Your task to perform on an android device: Open Reddit.com Image 0: 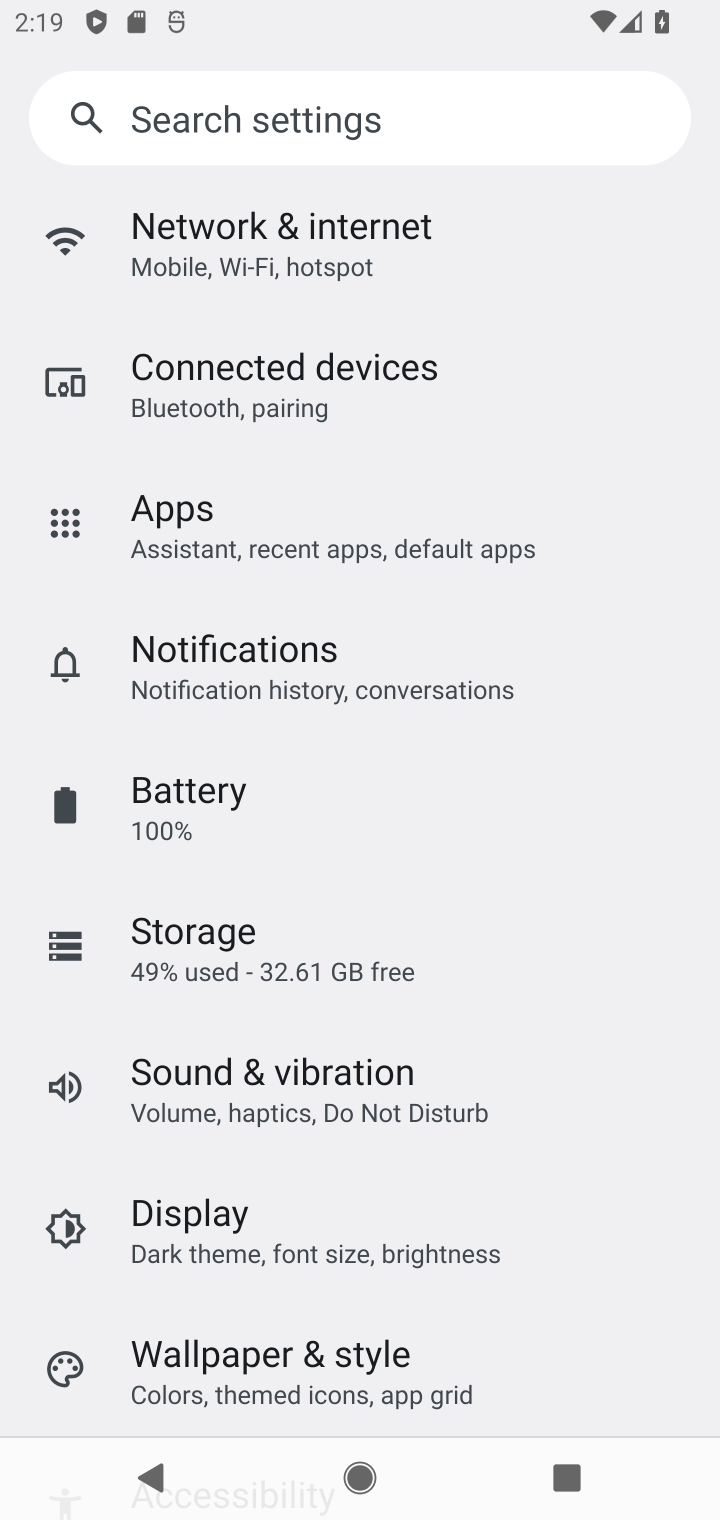
Step 0: press home button
Your task to perform on an android device: Open Reddit.com Image 1: 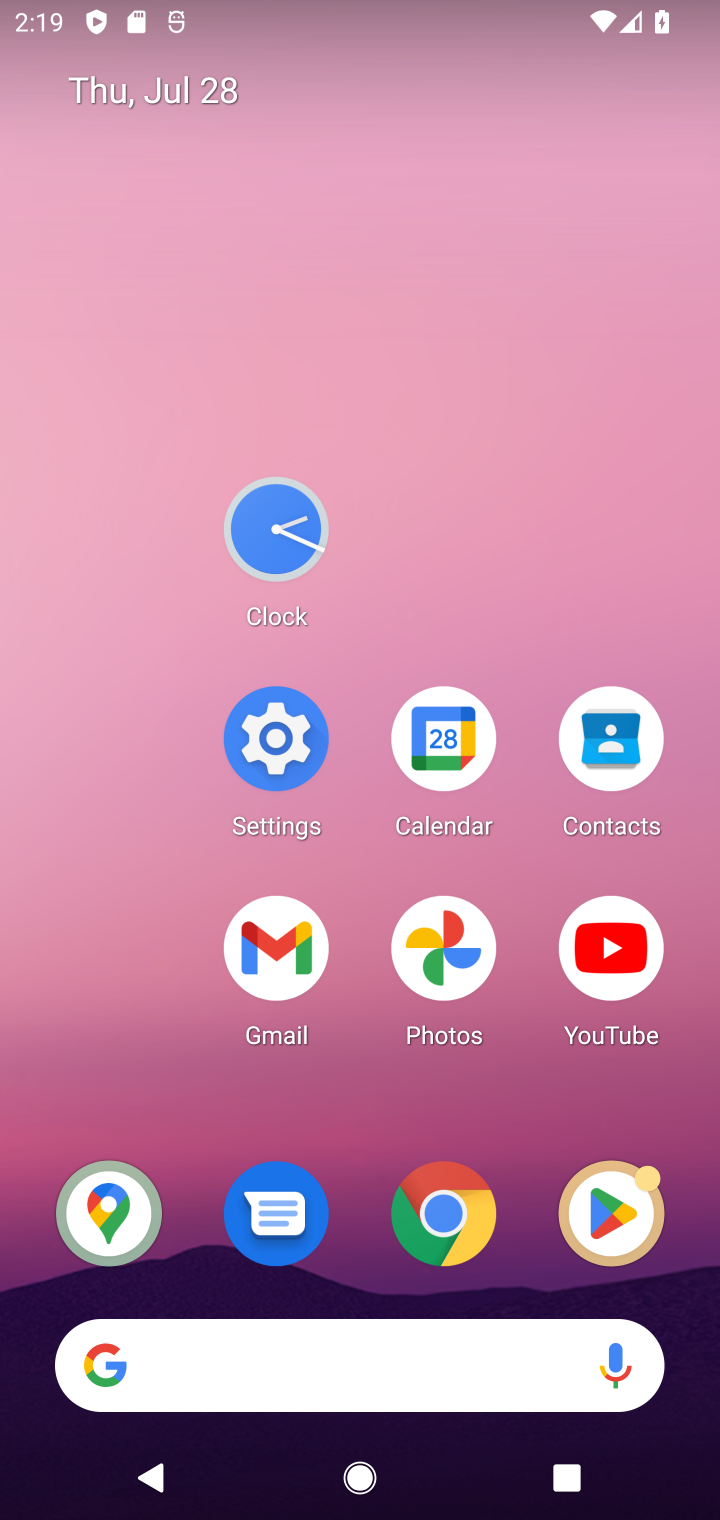
Step 1: click (315, 1369)
Your task to perform on an android device: Open Reddit.com Image 2: 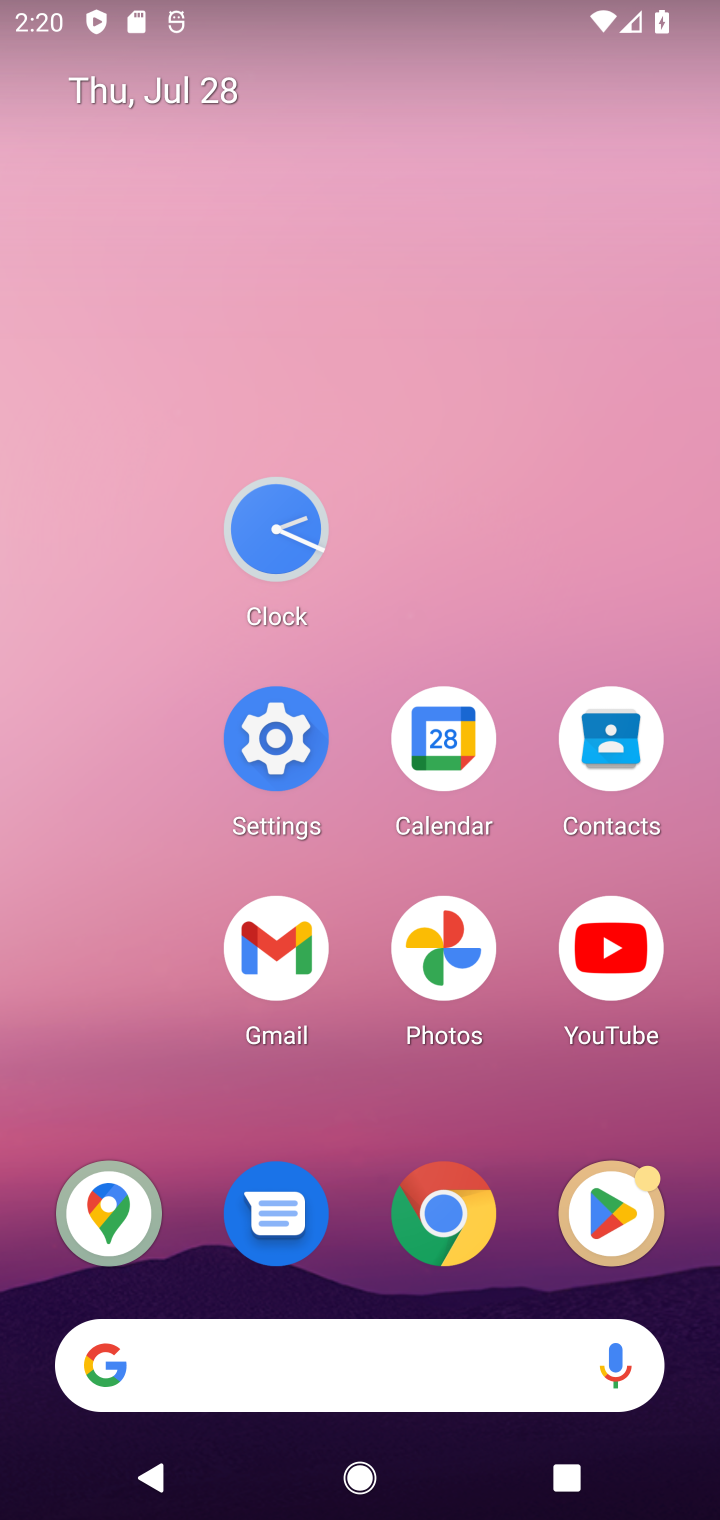
Step 2: click (236, 1378)
Your task to perform on an android device: Open Reddit.com Image 3: 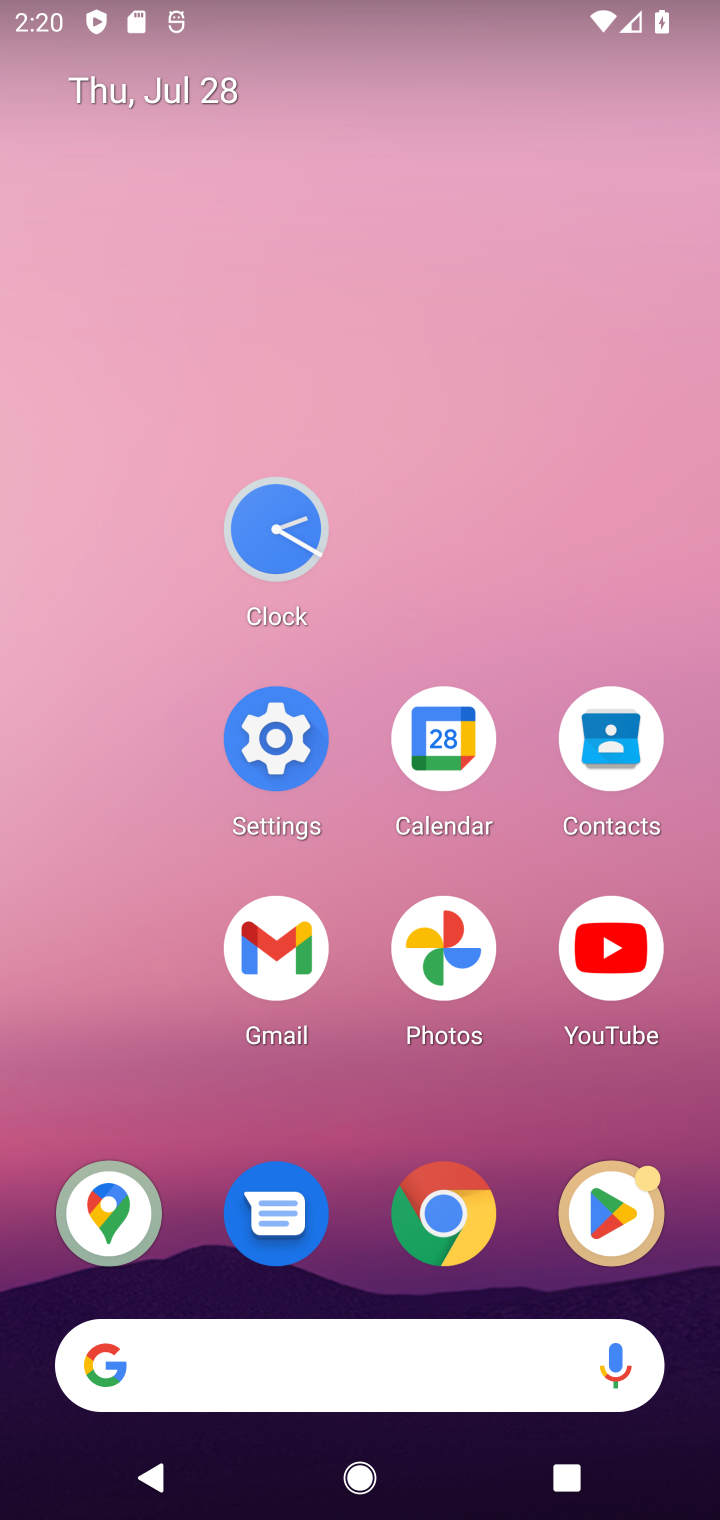
Step 3: click (283, 1370)
Your task to perform on an android device: Open Reddit.com Image 4: 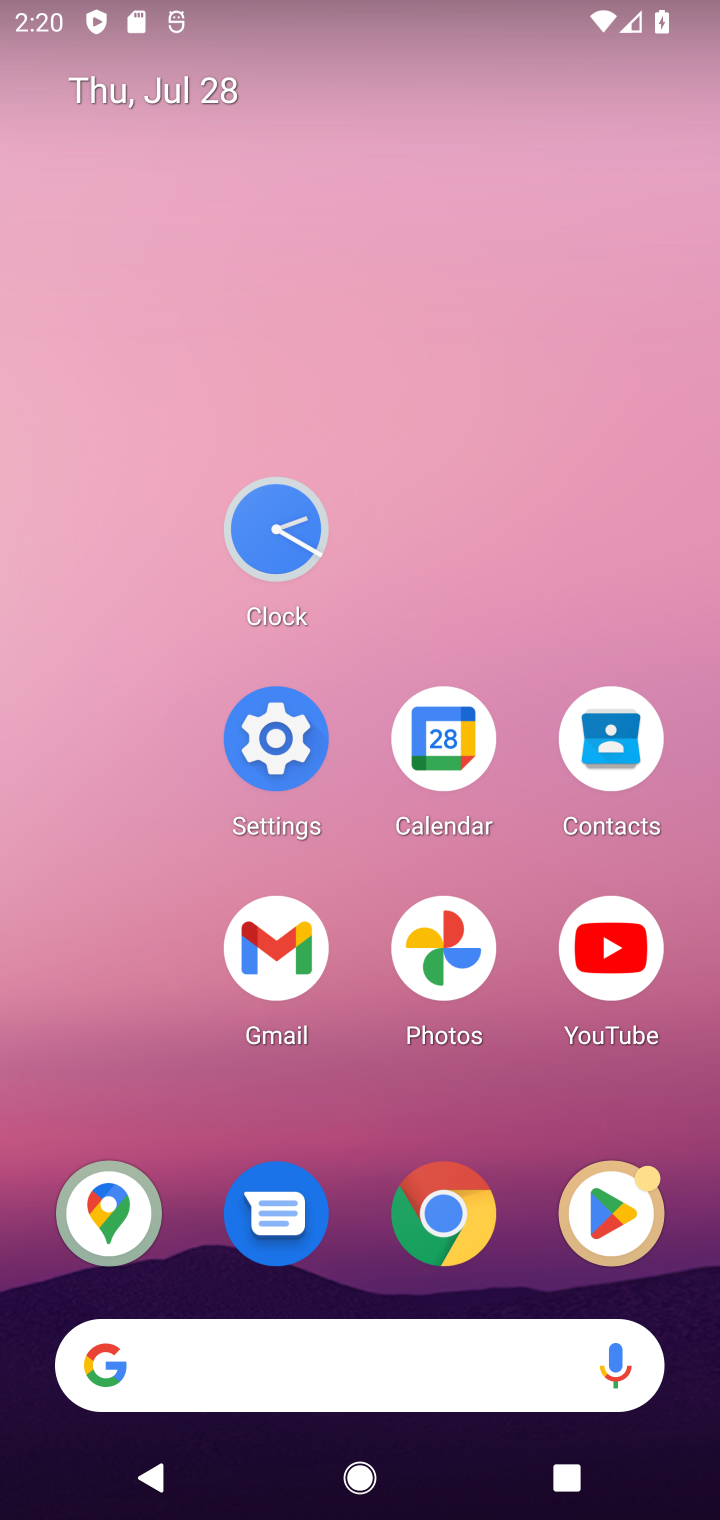
Step 4: click (180, 1358)
Your task to perform on an android device: Open Reddit.com Image 5: 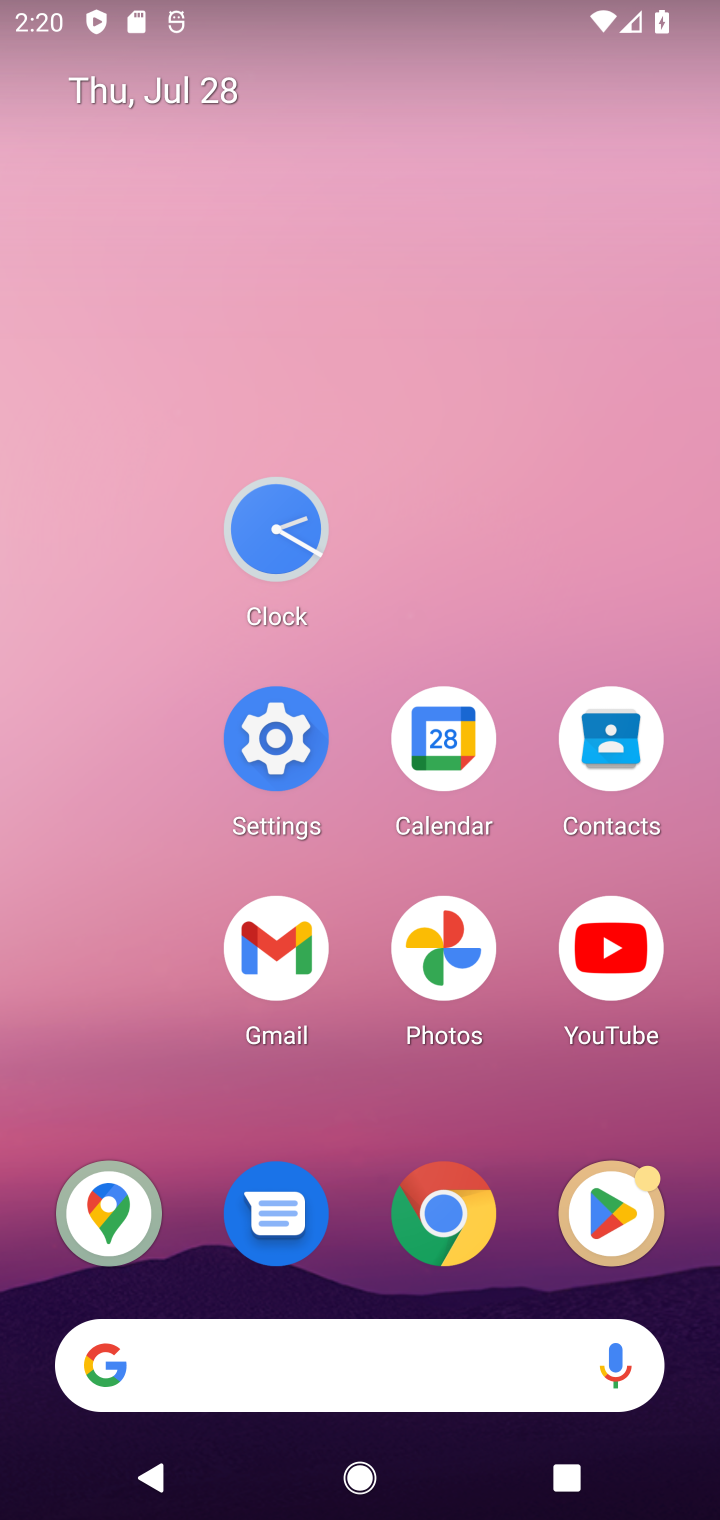
Step 5: click (355, 1356)
Your task to perform on an android device: Open Reddit.com Image 6: 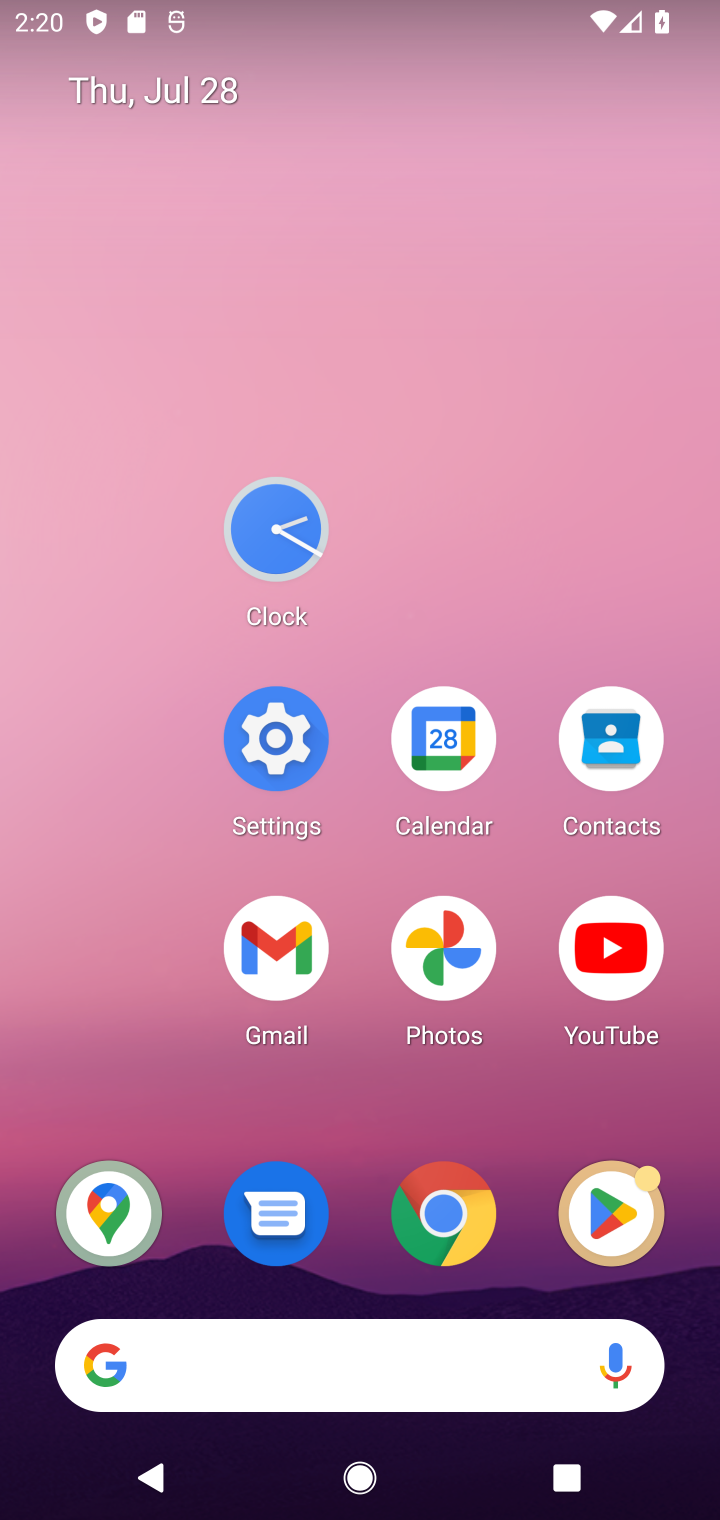
Step 6: click (111, 1371)
Your task to perform on an android device: Open Reddit.com Image 7: 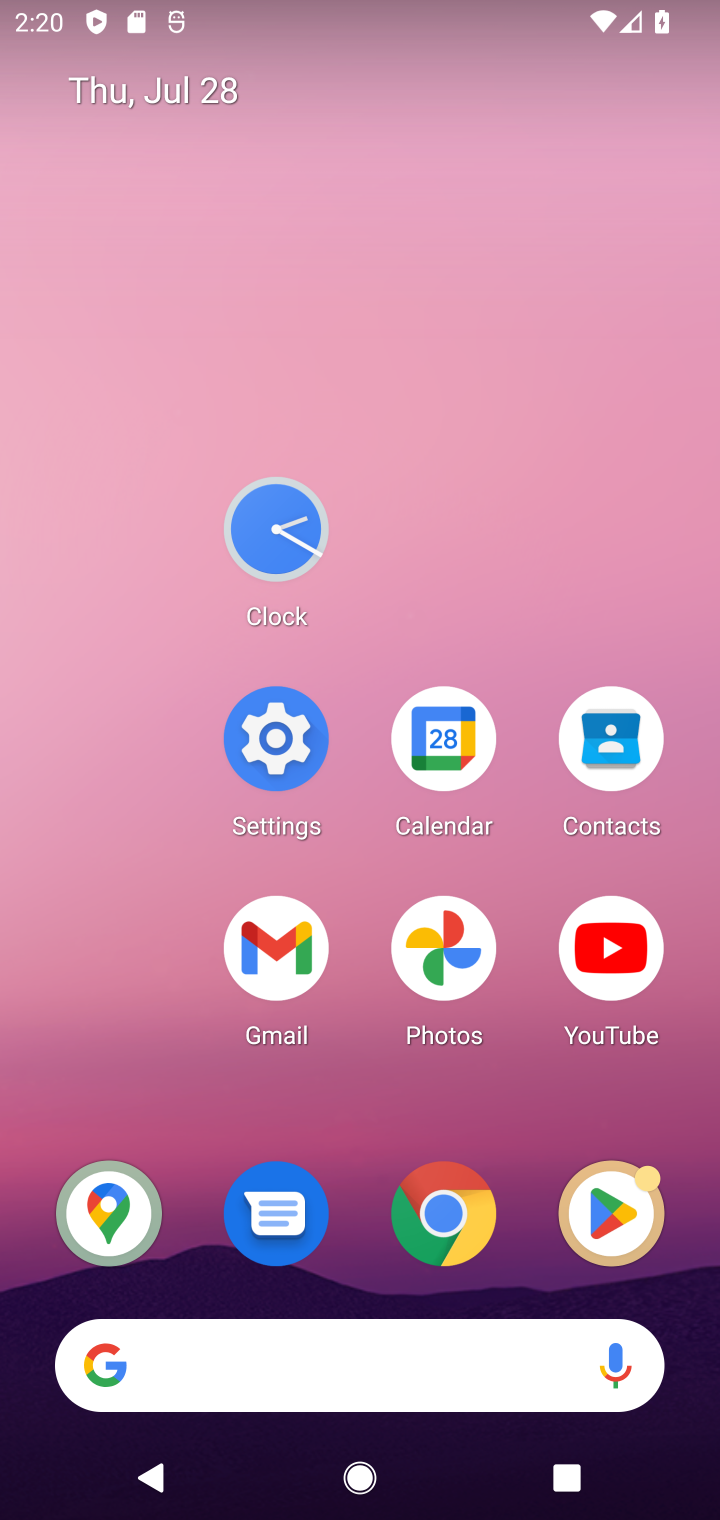
Step 7: click (101, 1363)
Your task to perform on an android device: Open Reddit.com Image 8: 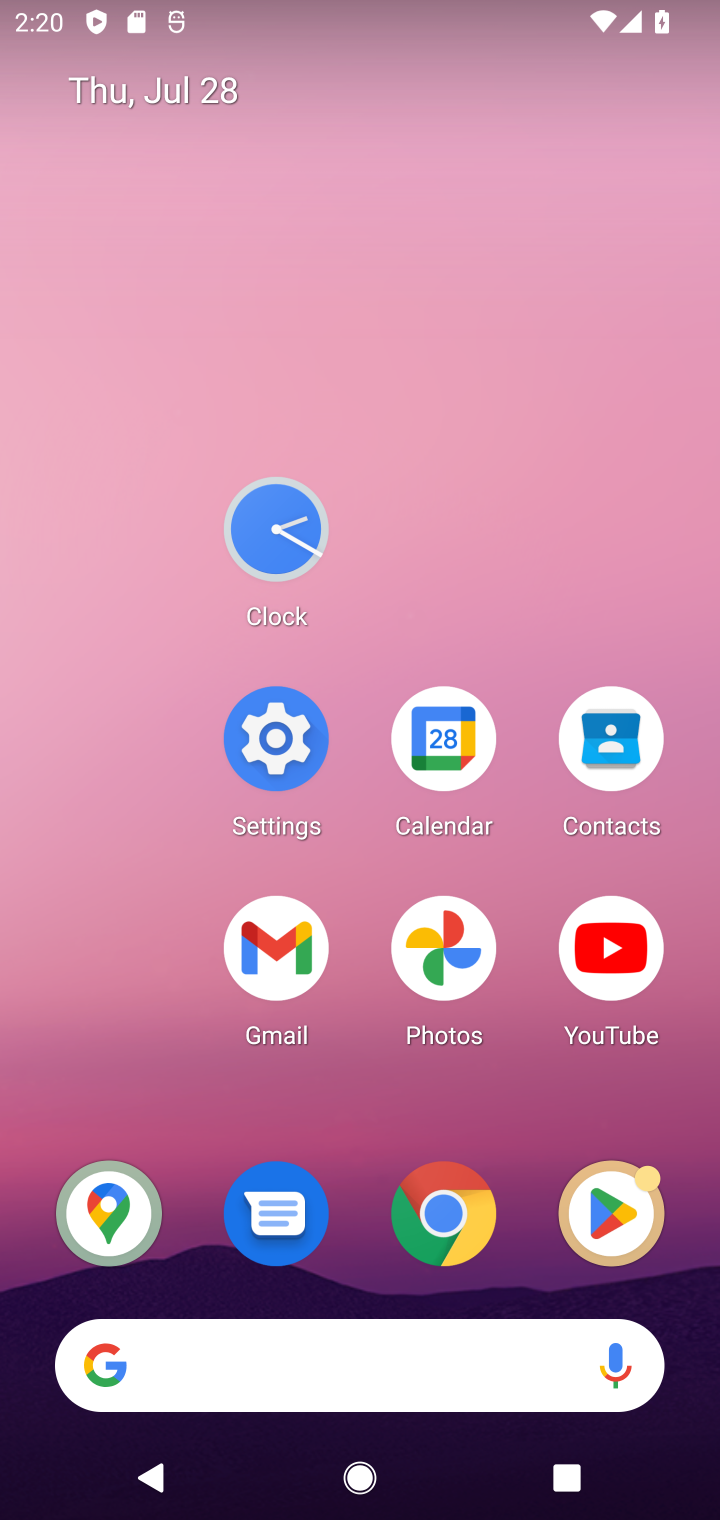
Step 8: click (435, 1213)
Your task to perform on an android device: Open Reddit.com Image 9: 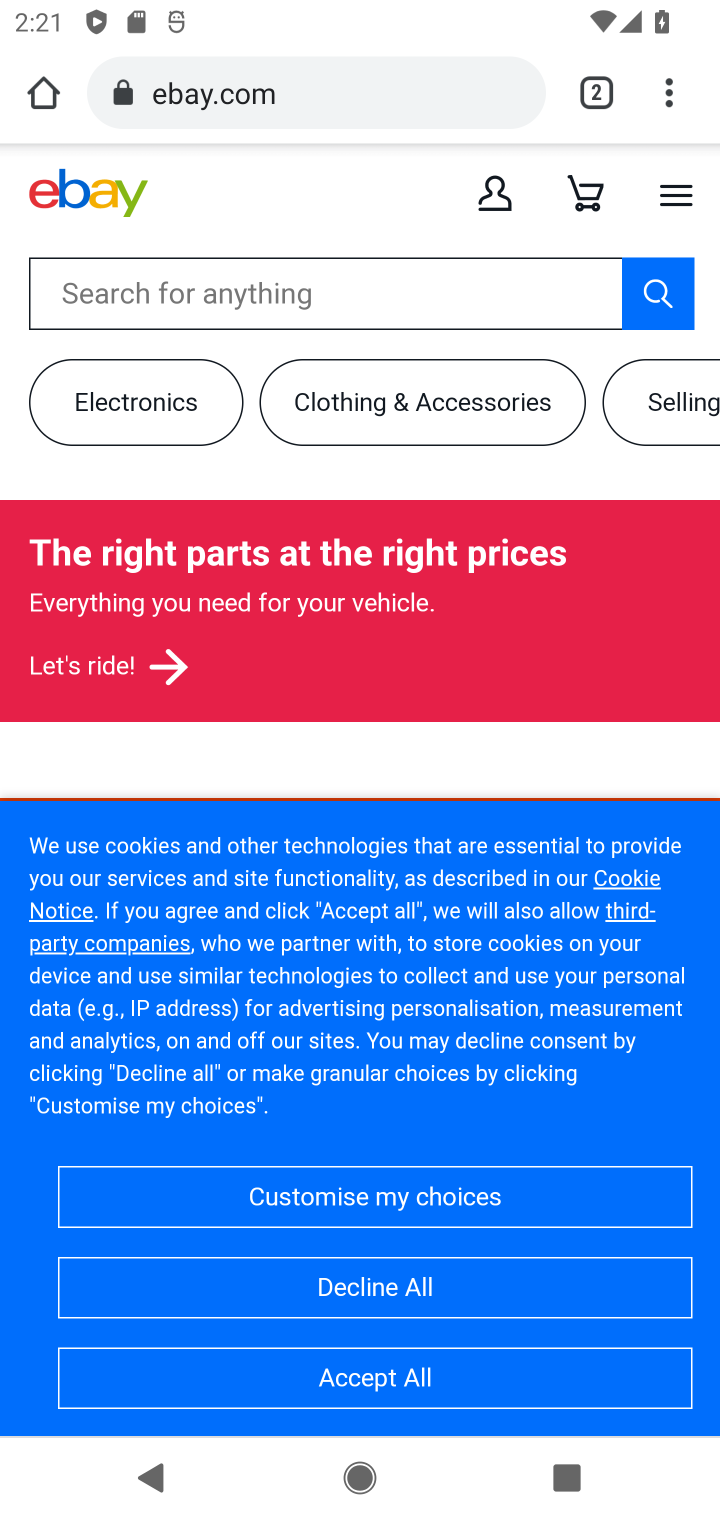
Step 9: click (668, 91)
Your task to perform on an android device: Open Reddit.com Image 10: 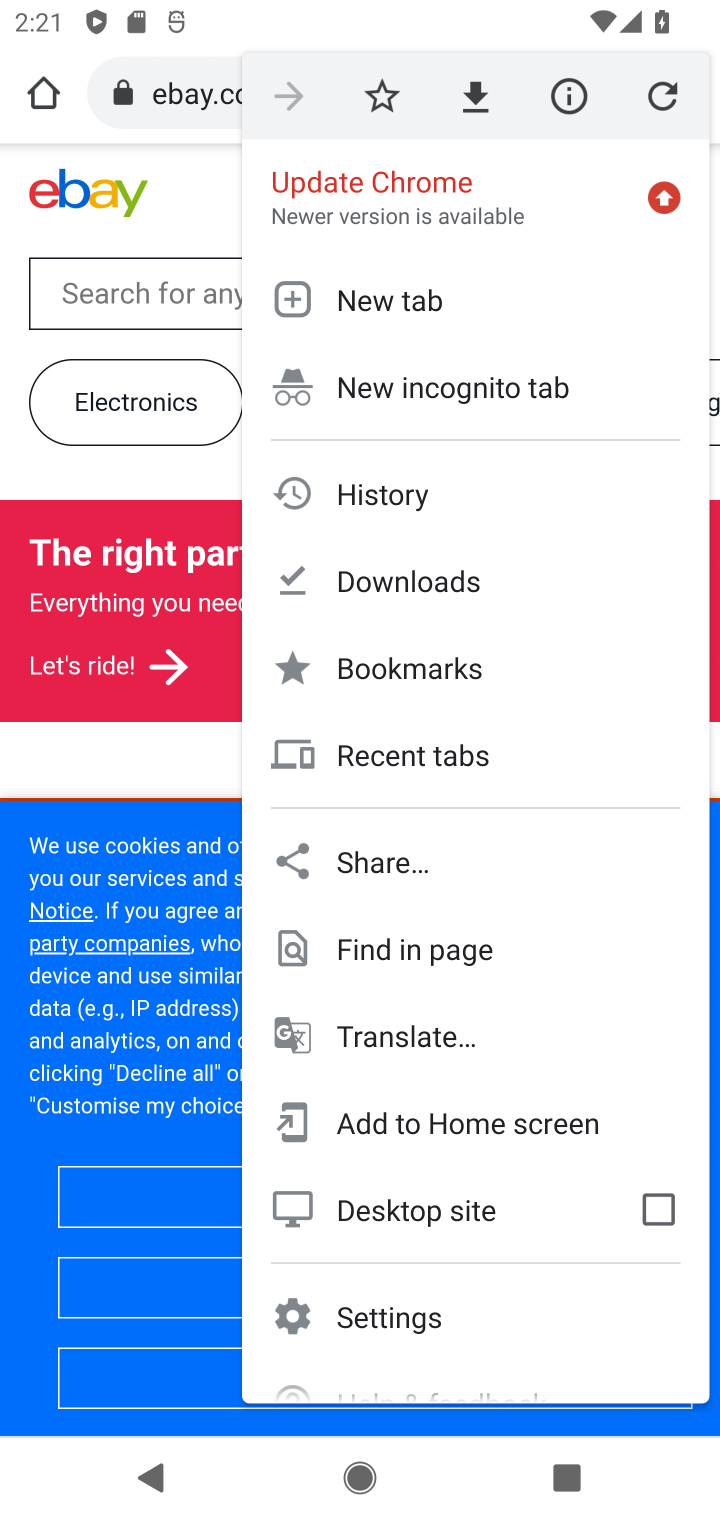
Step 10: click (358, 301)
Your task to perform on an android device: Open Reddit.com Image 11: 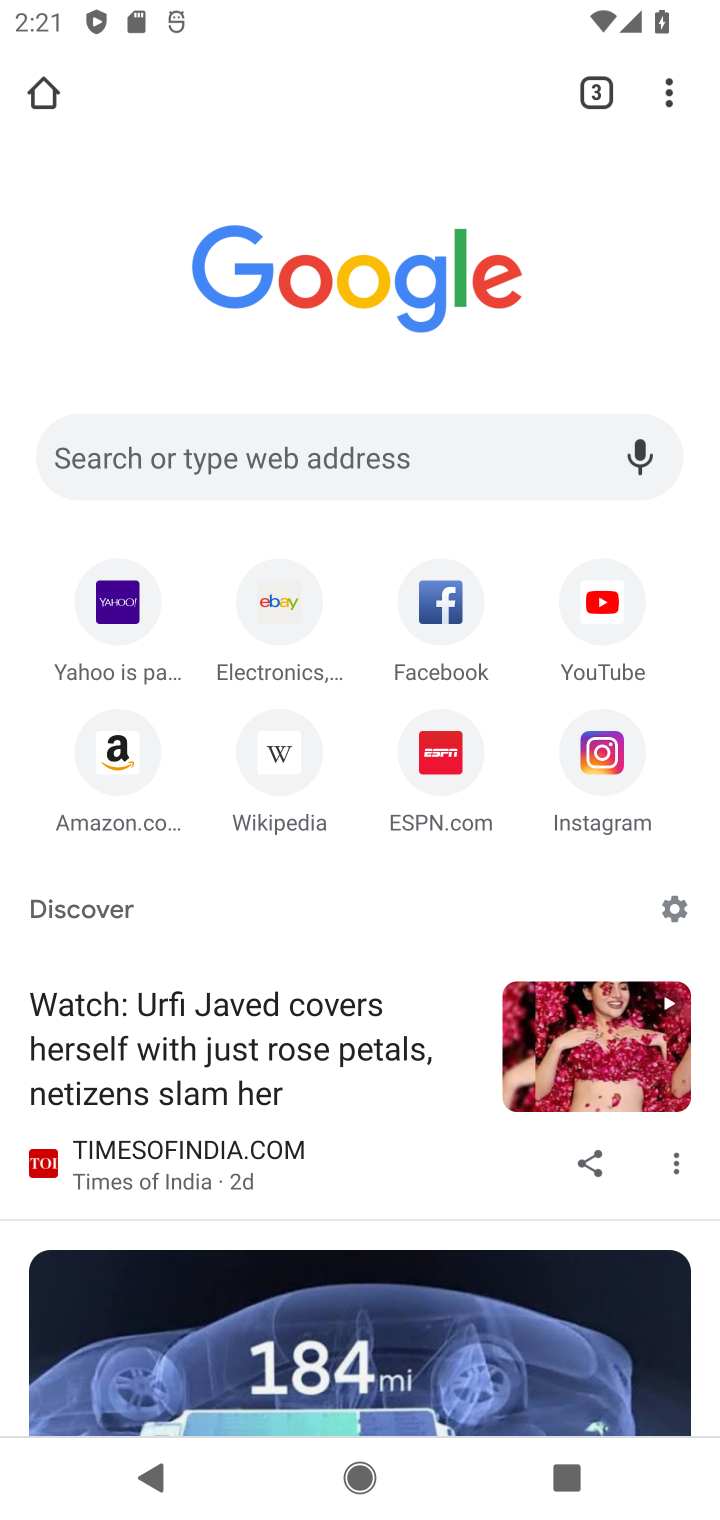
Step 11: click (315, 458)
Your task to perform on an android device: Open Reddit.com Image 12: 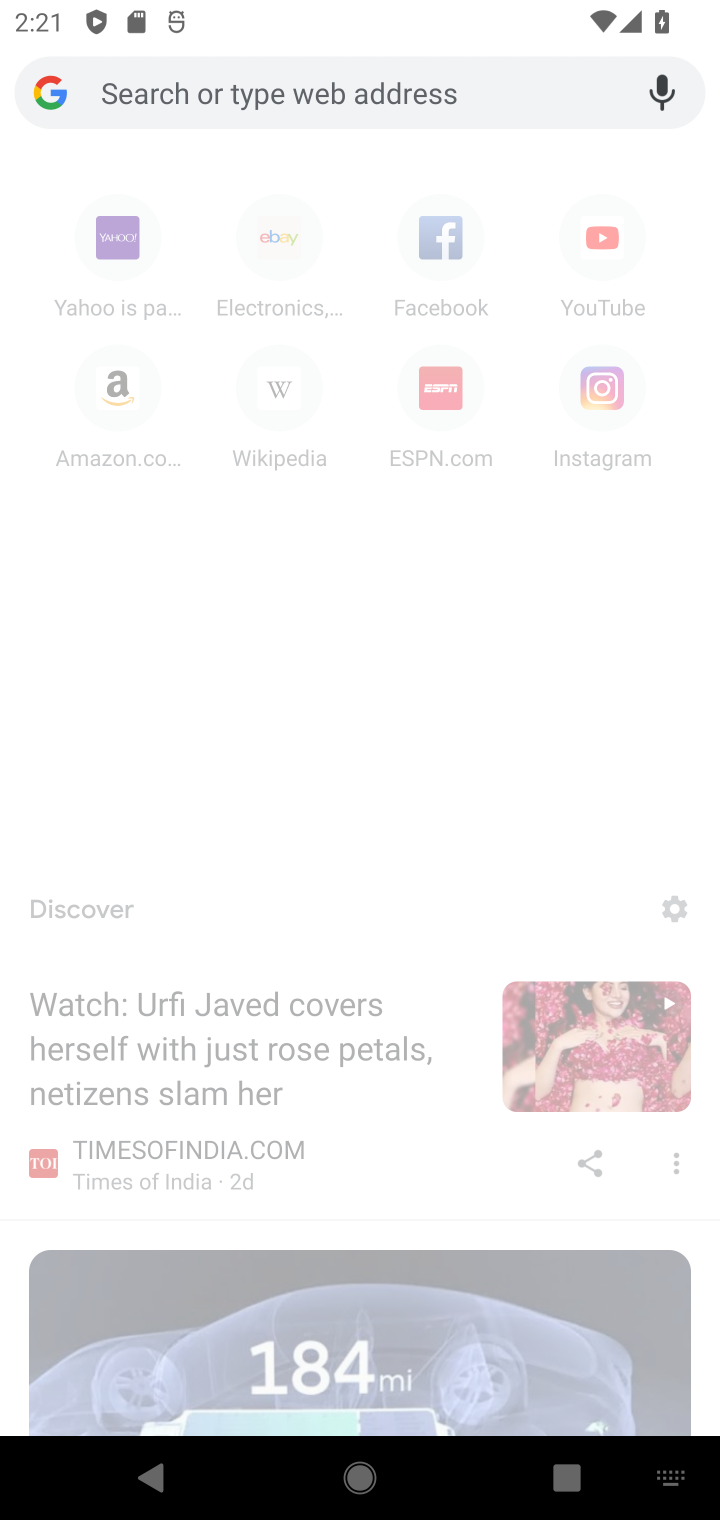
Step 12: type "reddit.com"
Your task to perform on an android device: Open Reddit.com Image 13: 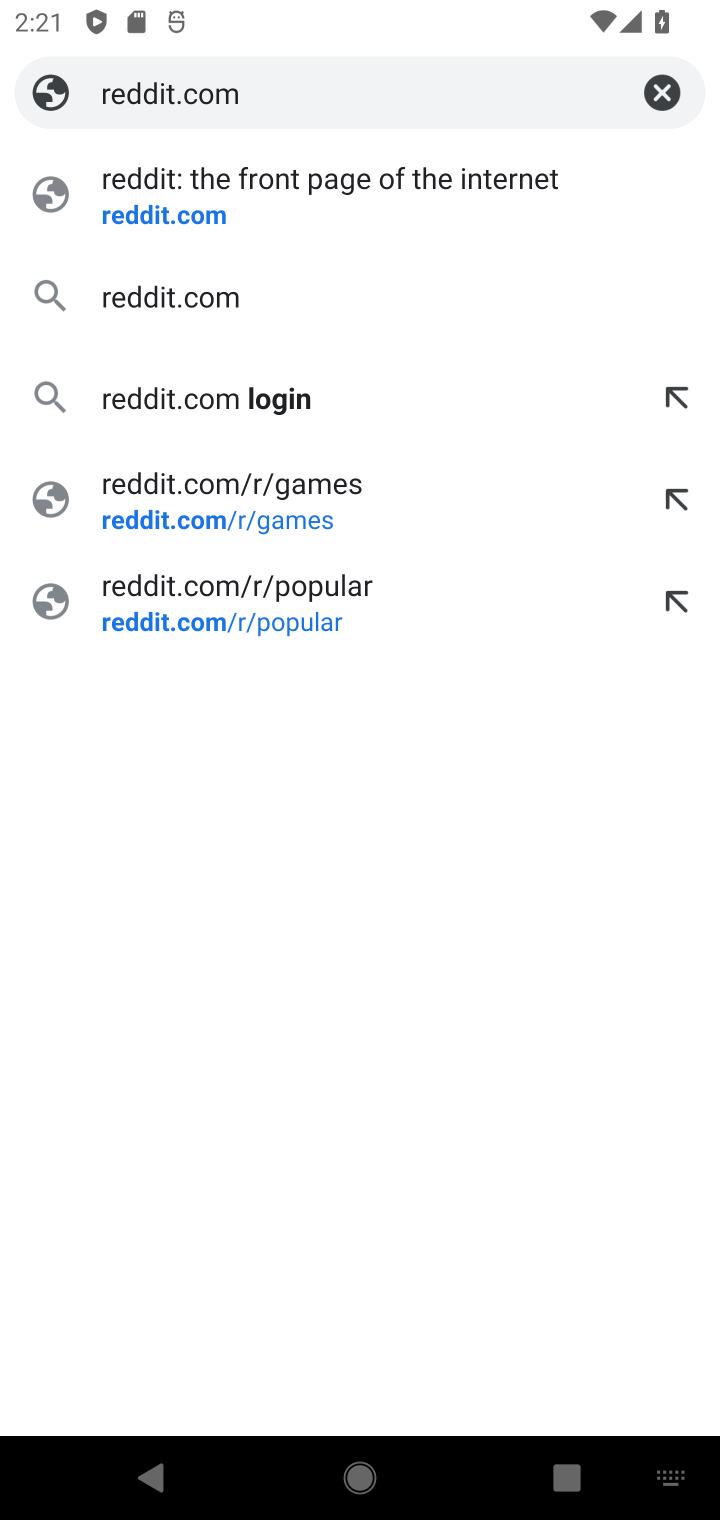
Step 13: click (174, 170)
Your task to perform on an android device: Open Reddit.com Image 14: 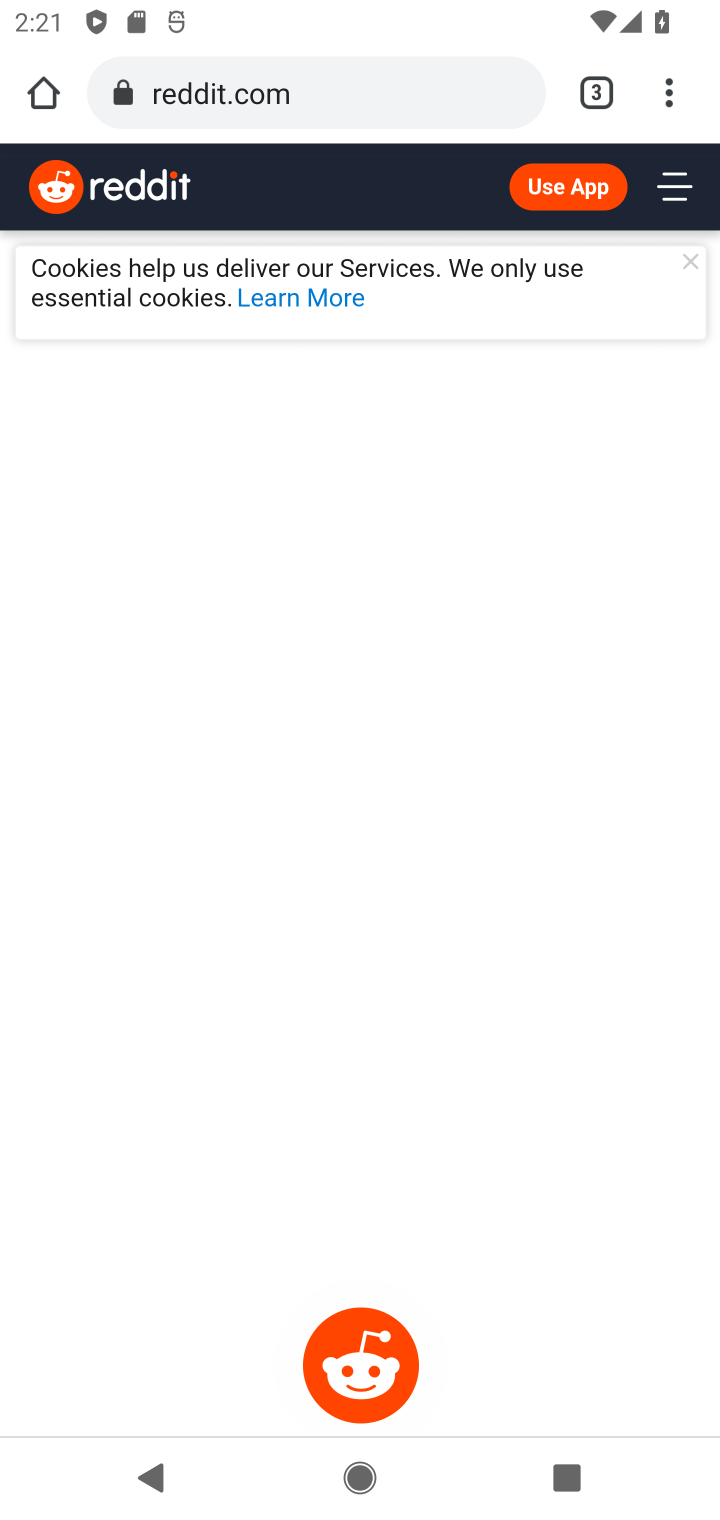
Step 14: task complete